Your task to perform on an android device: Do I have any events tomorrow? Image 0: 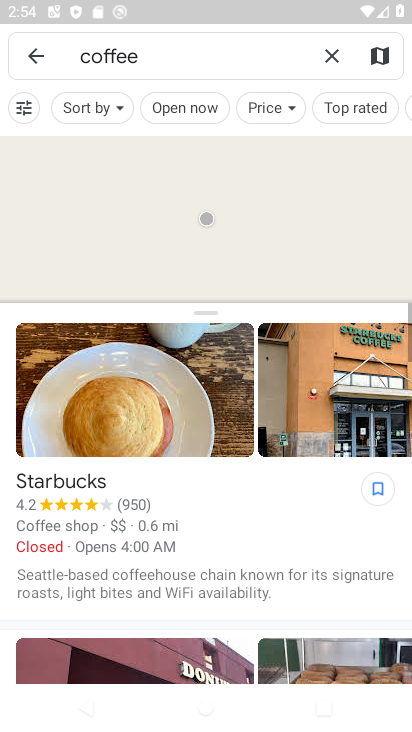
Step 0: press home button
Your task to perform on an android device: Do I have any events tomorrow? Image 1: 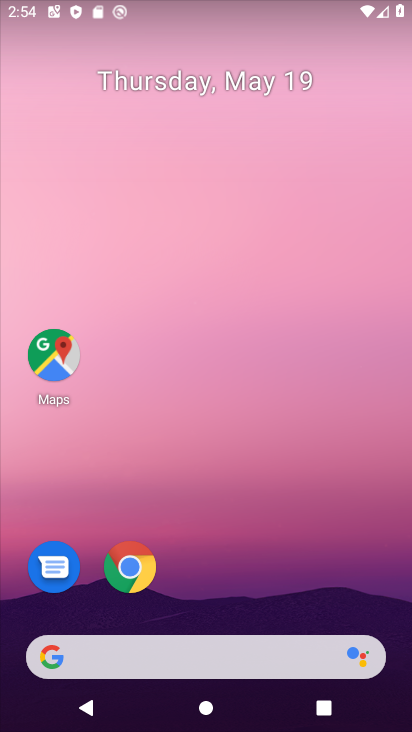
Step 1: drag from (227, 719) to (217, 196)
Your task to perform on an android device: Do I have any events tomorrow? Image 2: 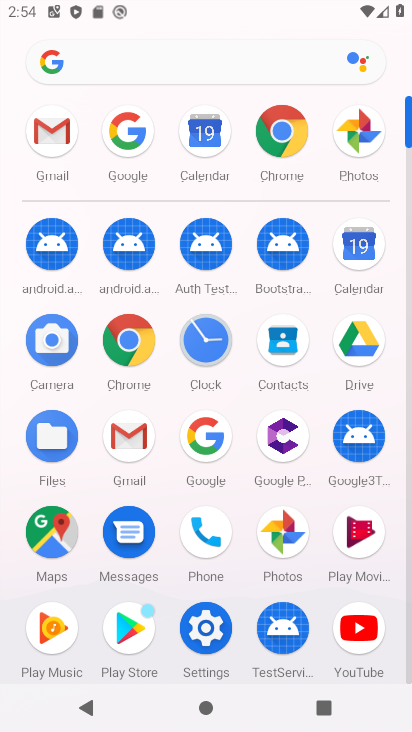
Step 2: click (360, 251)
Your task to perform on an android device: Do I have any events tomorrow? Image 3: 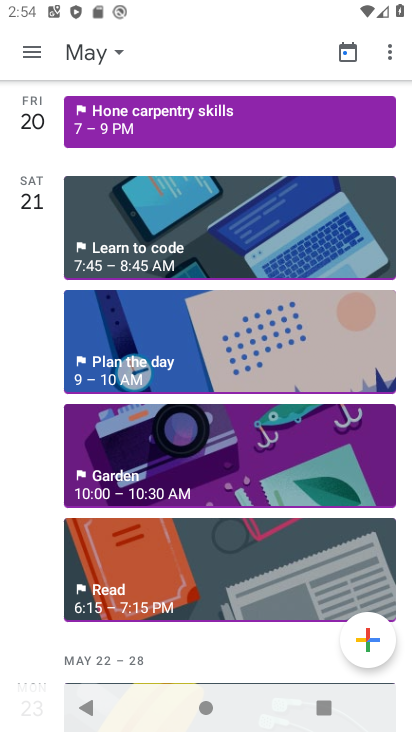
Step 3: click (36, 50)
Your task to perform on an android device: Do I have any events tomorrow? Image 4: 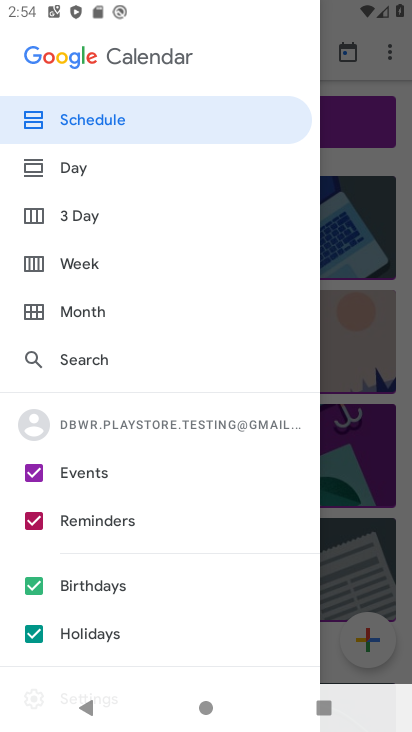
Step 4: click (37, 630)
Your task to perform on an android device: Do I have any events tomorrow? Image 5: 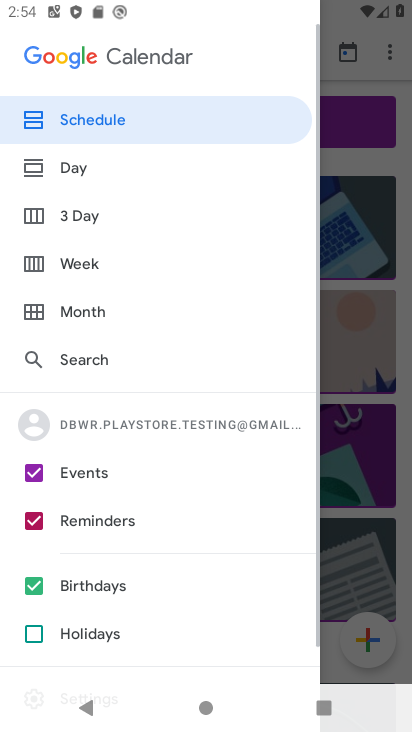
Step 5: click (32, 587)
Your task to perform on an android device: Do I have any events tomorrow? Image 6: 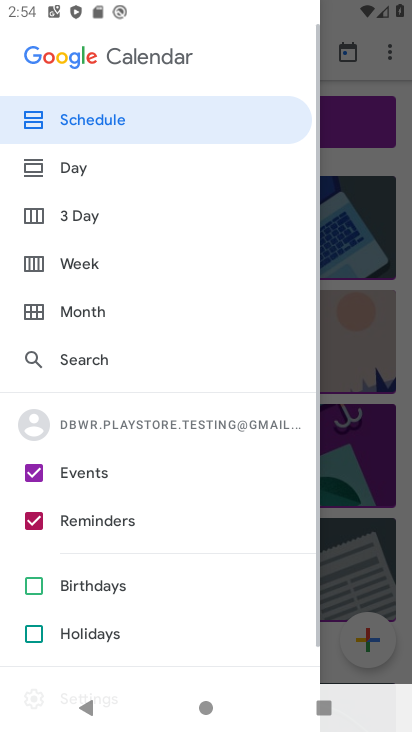
Step 6: click (37, 521)
Your task to perform on an android device: Do I have any events tomorrow? Image 7: 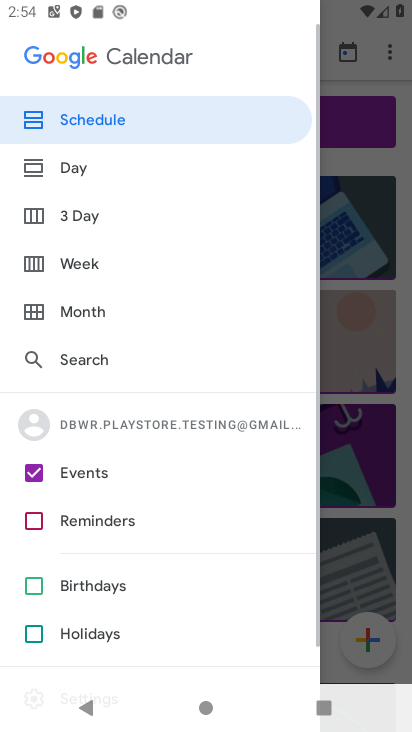
Step 7: click (109, 120)
Your task to perform on an android device: Do I have any events tomorrow? Image 8: 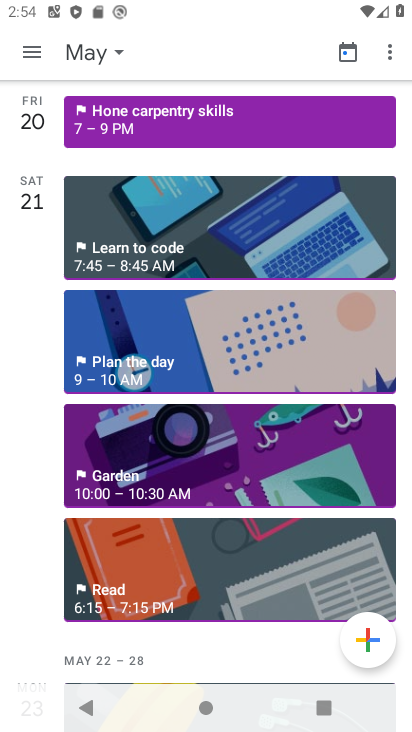
Step 8: click (94, 47)
Your task to perform on an android device: Do I have any events tomorrow? Image 9: 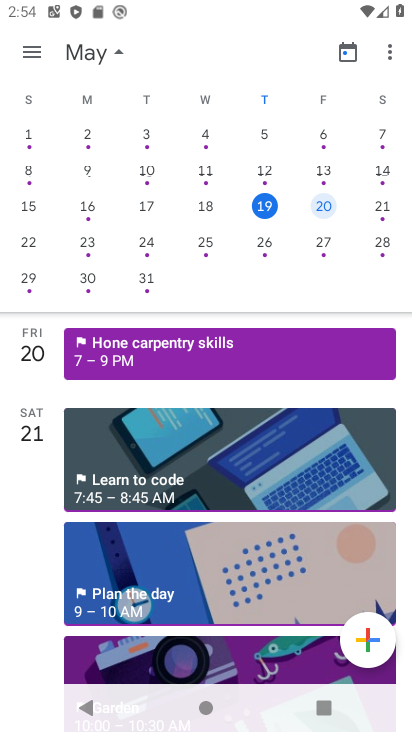
Step 9: click (323, 201)
Your task to perform on an android device: Do I have any events tomorrow? Image 10: 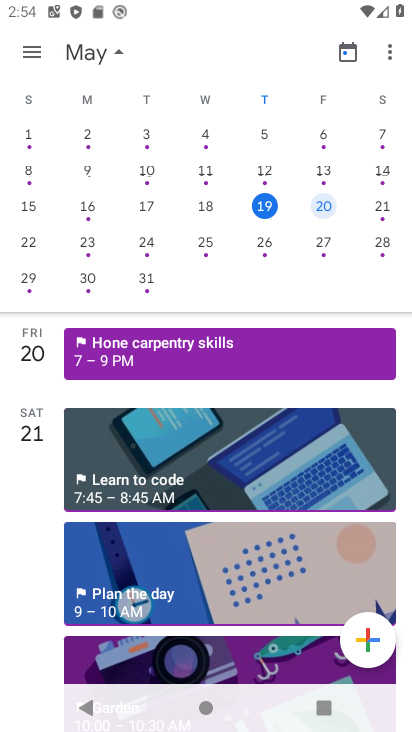
Step 10: click (321, 207)
Your task to perform on an android device: Do I have any events tomorrow? Image 11: 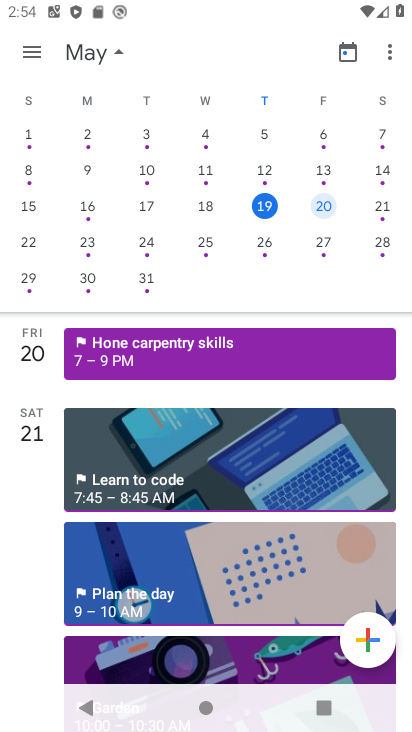
Step 11: click (116, 46)
Your task to perform on an android device: Do I have any events tomorrow? Image 12: 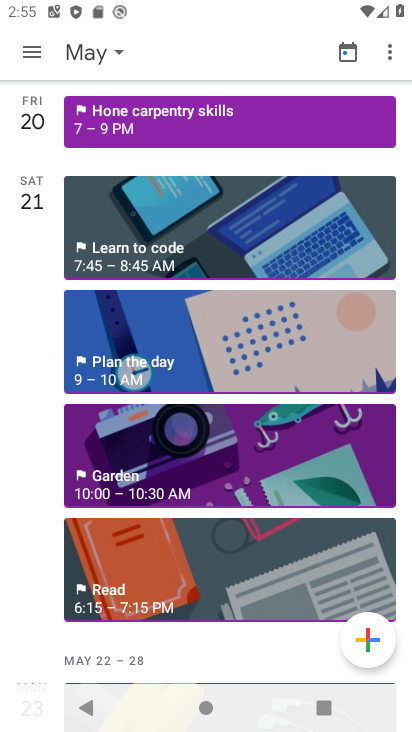
Step 12: task complete